Your task to perform on an android device: add a contact Image 0: 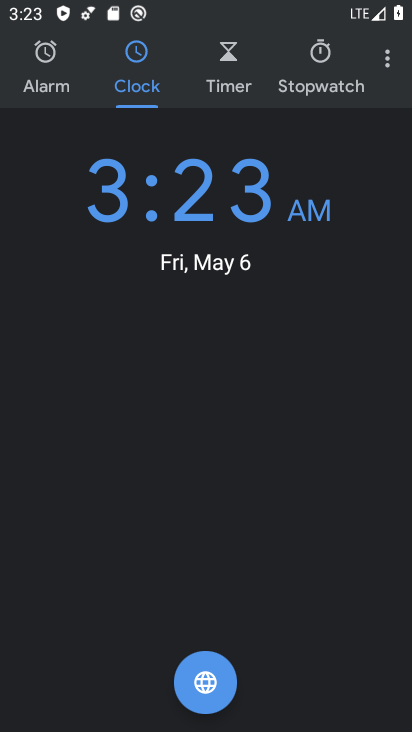
Step 0: press home button
Your task to perform on an android device: add a contact Image 1: 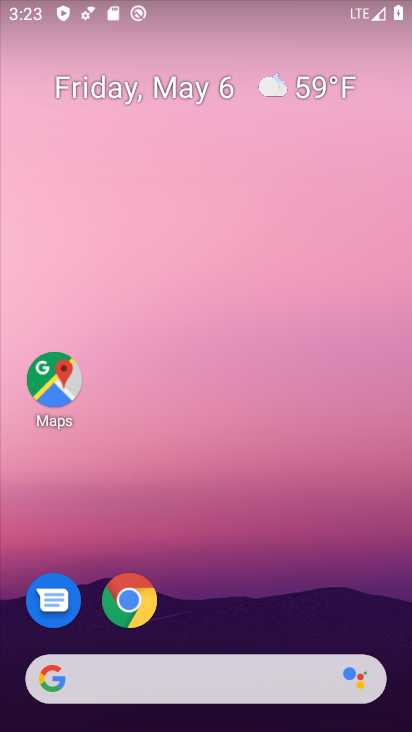
Step 1: drag from (237, 585) to (220, 9)
Your task to perform on an android device: add a contact Image 2: 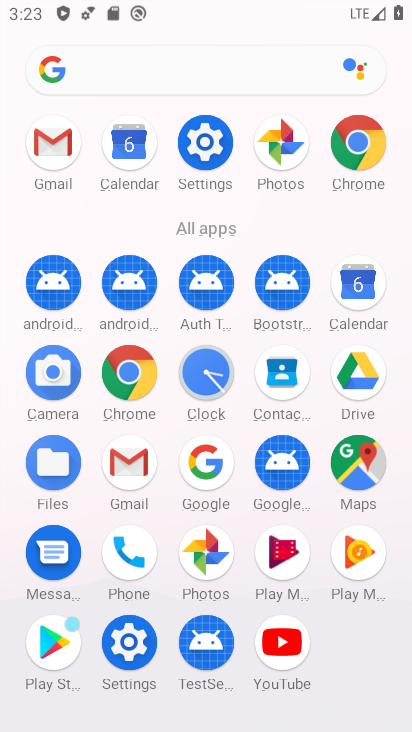
Step 2: click (276, 384)
Your task to perform on an android device: add a contact Image 3: 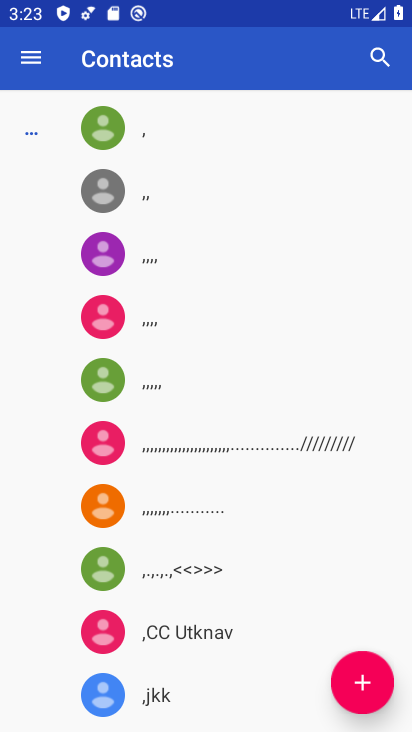
Step 3: click (367, 665)
Your task to perform on an android device: add a contact Image 4: 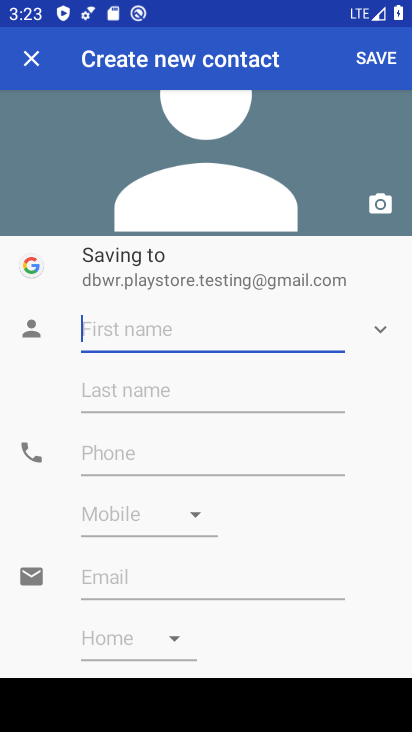
Step 4: type "dragon"
Your task to perform on an android device: add a contact Image 5: 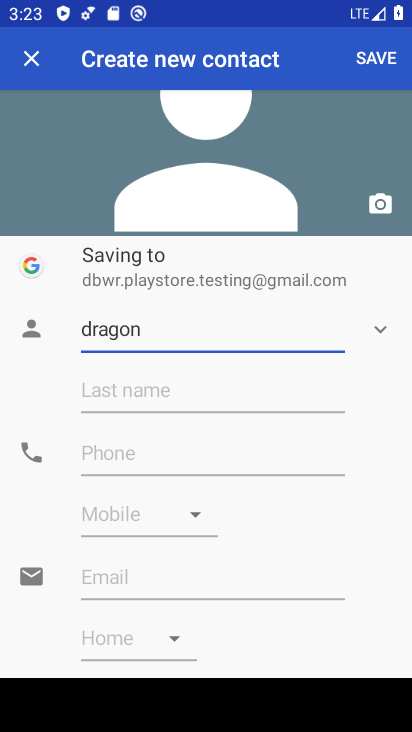
Step 5: click (380, 68)
Your task to perform on an android device: add a contact Image 6: 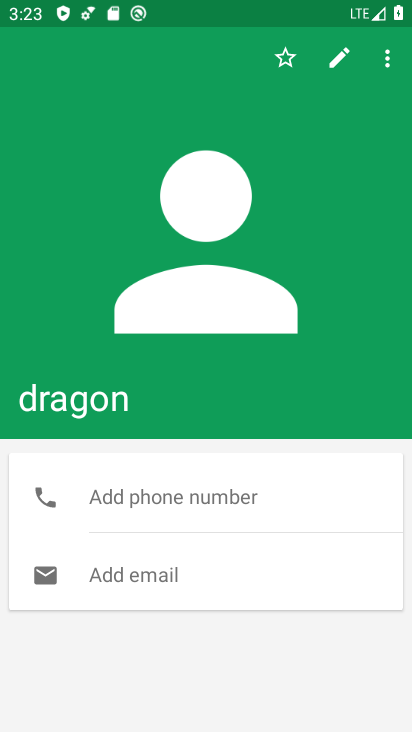
Step 6: task complete